Your task to perform on an android device: Open the Play Movies app and select the watchlist tab. Image 0: 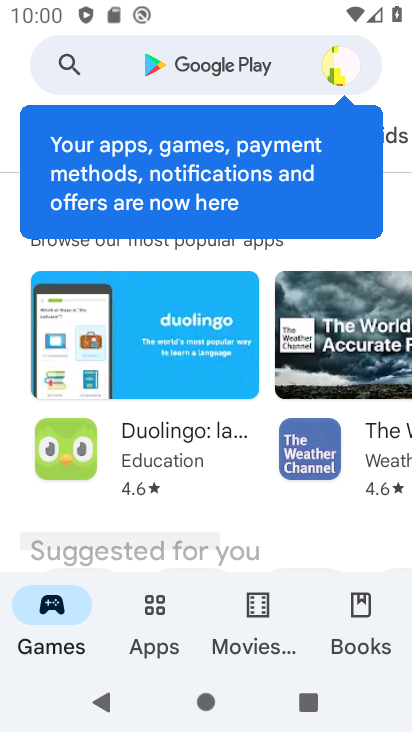
Step 0: press home button
Your task to perform on an android device: Open the Play Movies app and select the watchlist tab. Image 1: 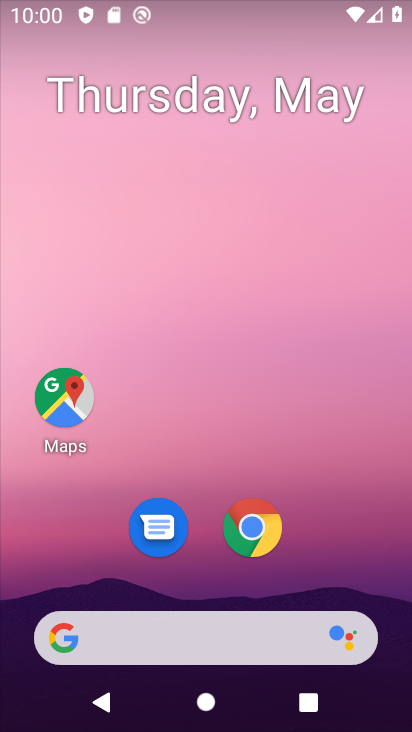
Step 1: drag from (269, 604) to (281, 130)
Your task to perform on an android device: Open the Play Movies app and select the watchlist tab. Image 2: 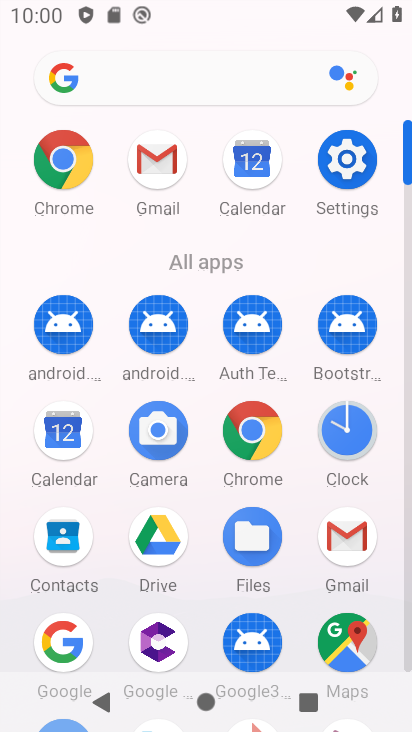
Step 2: drag from (226, 302) to (235, 244)
Your task to perform on an android device: Open the Play Movies app and select the watchlist tab. Image 3: 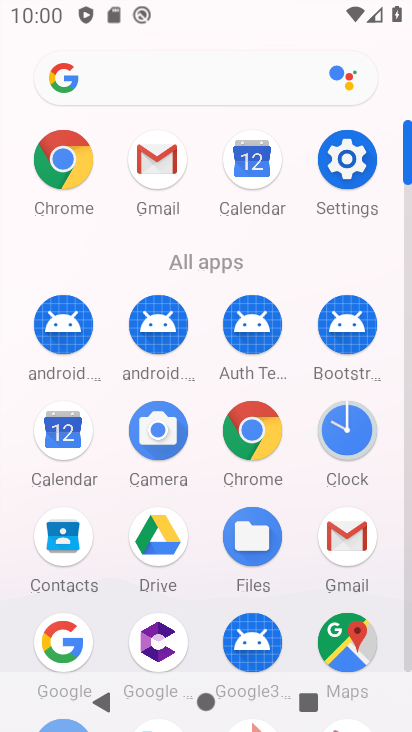
Step 3: drag from (199, 607) to (222, 245)
Your task to perform on an android device: Open the Play Movies app and select the watchlist tab. Image 4: 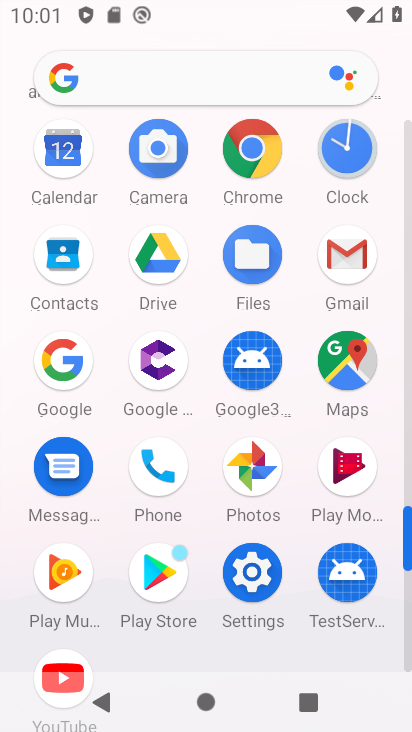
Step 4: click (343, 473)
Your task to perform on an android device: Open the Play Movies app and select the watchlist tab. Image 5: 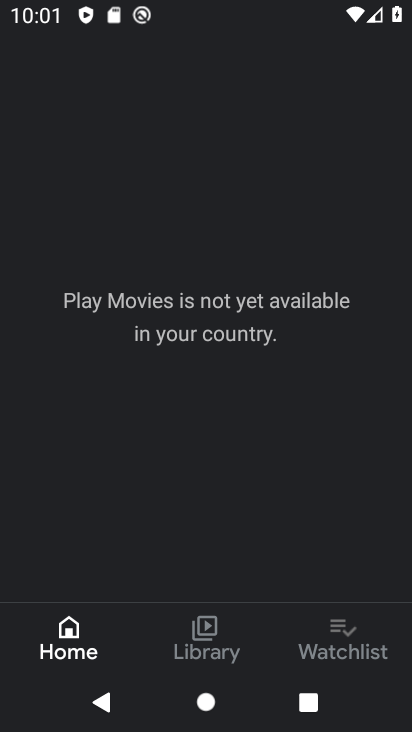
Step 5: click (324, 657)
Your task to perform on an android device: Open the Play Movies app and select the watchlist tab. Image 6: 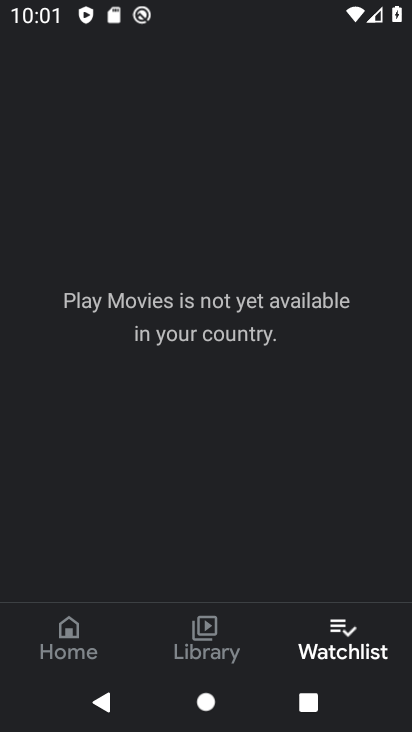
Step 6: task complete